Your task to perform on an android device: find snoozed emails in the gmail app Image 0: 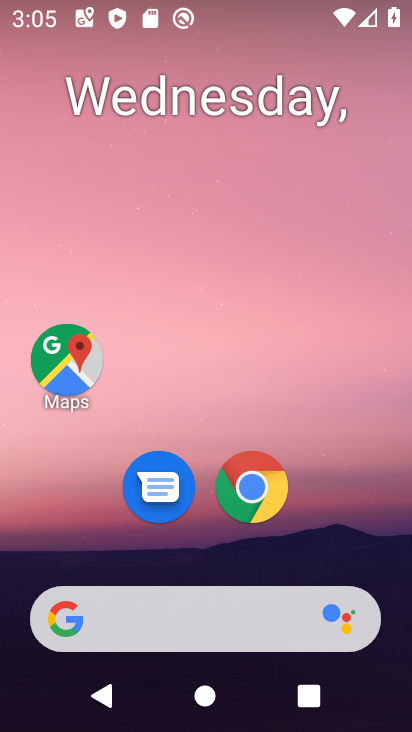
Step 0: drag from (262, 679) to (256, 338)
Your task to perform on an android device: find snoozed emails in the gmail app Image 1: 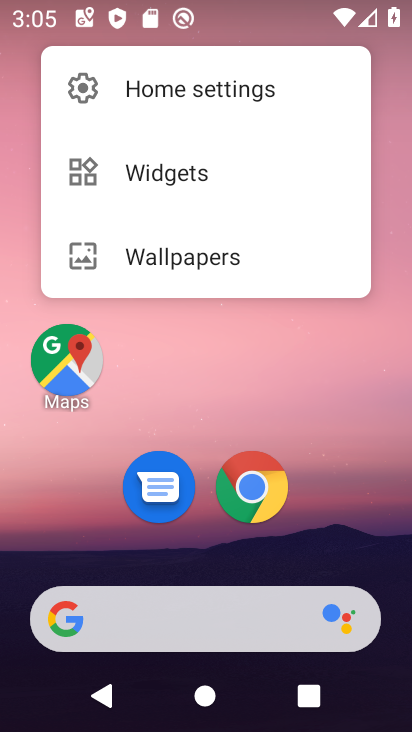
Step 1: click (201, 405)
Your task to perform on an android device: find snoozed emails in the gmail app Image 2: 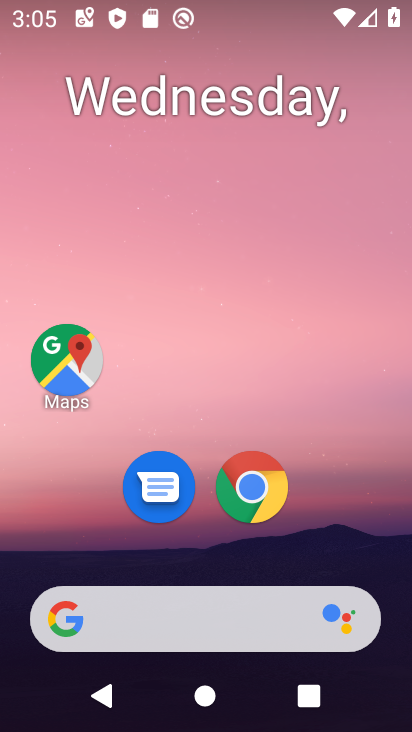
Step 2: drag from (196, 585) to (208, 121)
Your task to perform on an android device: find snoozed emails in the gmail app Image 3: 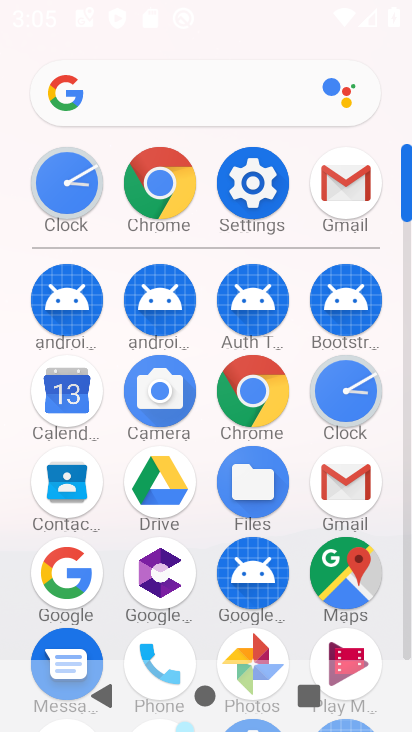
Step 3: click (353, 490)
Your task to perform on an android device: find snoozed emails in the gmail app Image 4: 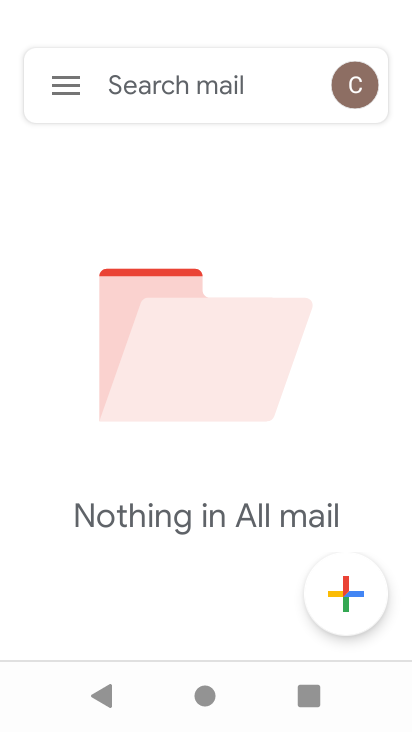
Step 4: click (65, 100)
Your task to perform on an android device: find snoozed emails in the gmail app Image 5: 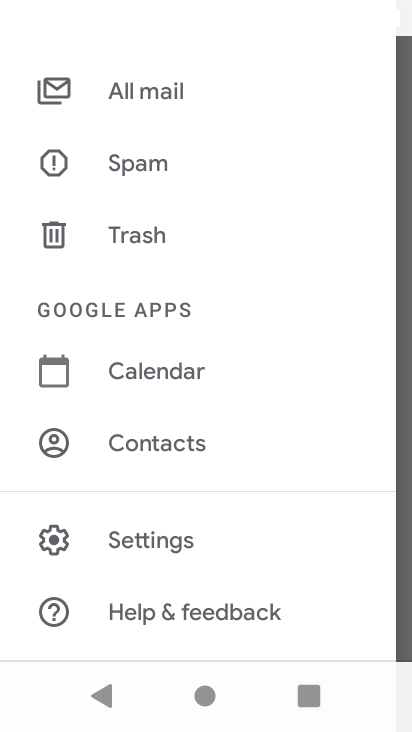
Step 5: drag from (157, 236) to (182, 562)
Your task to perform on an android device: find snoozed emails in the gmail app Image 6: 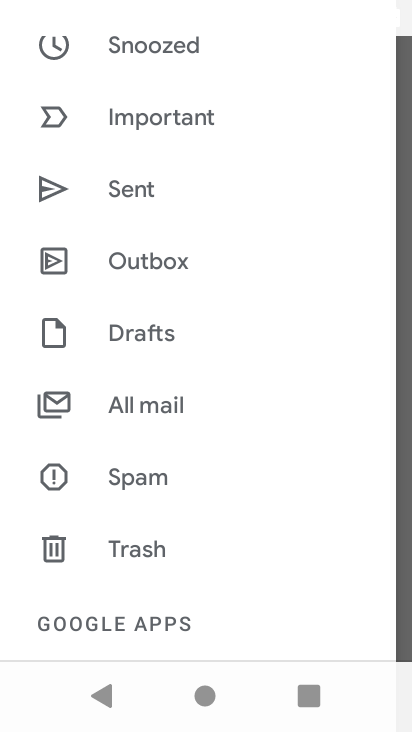
Step 6: drag from (159, 248) to (159, 457)
Your task to perform on an android device: find snoozed emails in the gmail app Image 7: 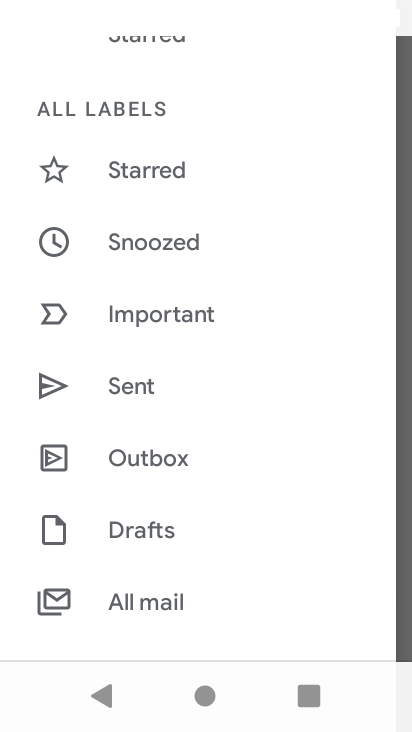
Step 7: click (172, 256)
Your task to perform on an android device: find snoozed emails in the gmail app Image 8: 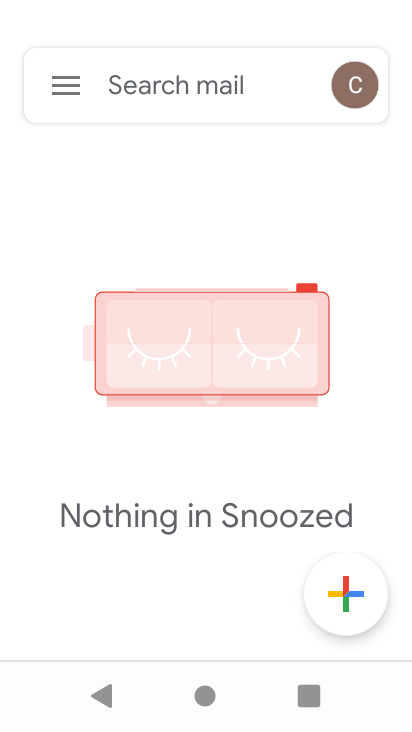
Step 8: task complete